Your task to perform on an android device: Open the phone app and click the voicemail tab. Image 0: 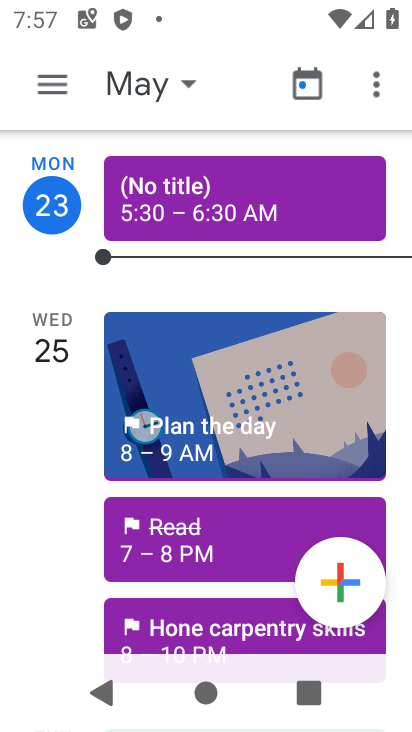
Step 0: press home button
Your task to perform on an android device: Open the phone app and click the voicemail tab. Image 1: 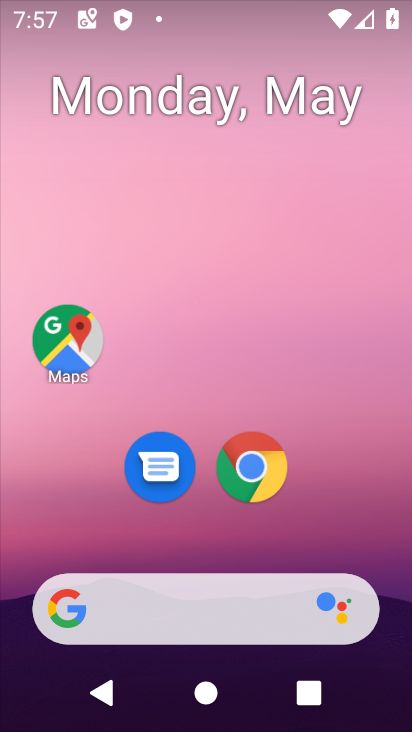
Step 1: drag from (331, 548) to (223, 80)
Your task to perform on an android device: Open the phone app and click the voicemail tab. Image 2: 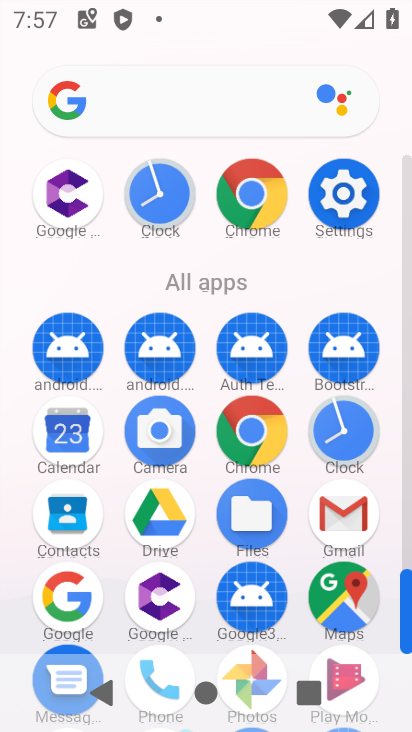
Step 2: drag from (206, 562) to (201, 237)
Your task to perform on an android device: Open the phone app and click the voicemail tab. Image 3: 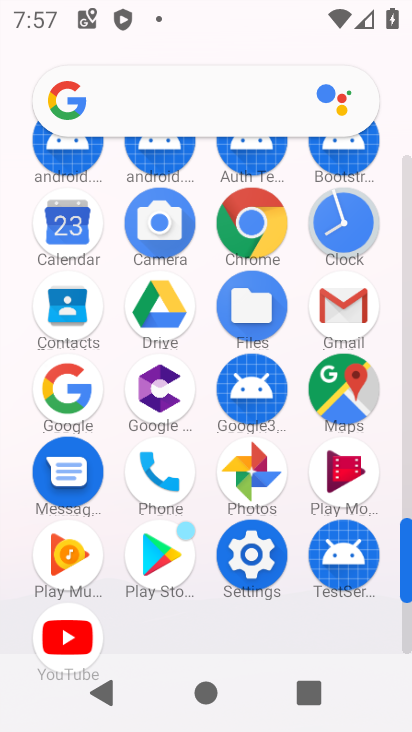
Step 3: click (166, 466)
Your task to perform on an android device: Open the phone app and click the voicemail tab. Image 4: 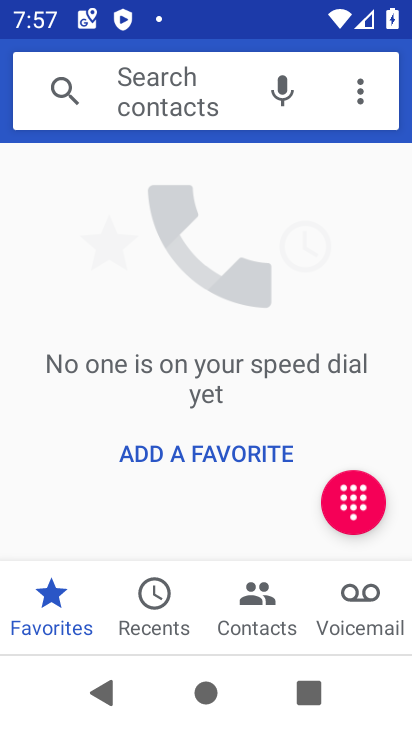
Step 4: click (368, 612)
Your task to perform on an android device: Open the phone app and click the voicemail tab. Image 5: 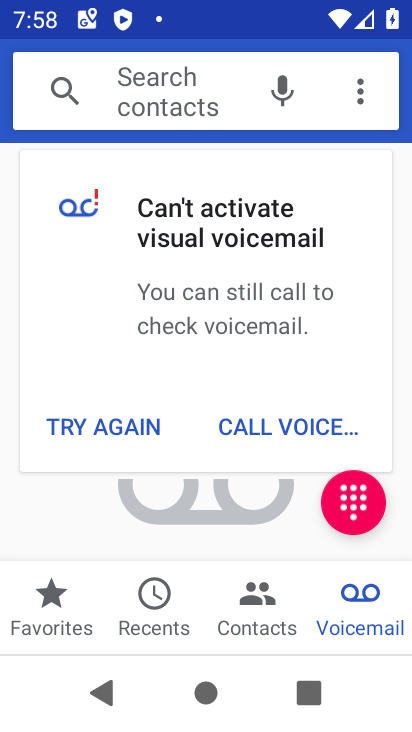
Step 5: task complete